Your task to perform on an android device: turn off smart reply in the gmail app Image 0: 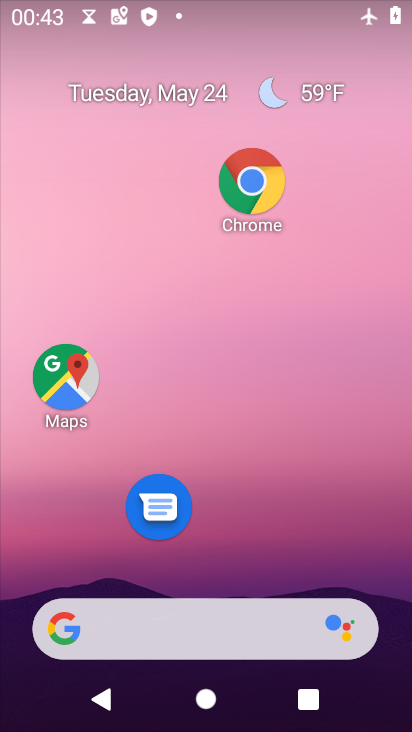
Step 0: drag from (267, 551) to (253, 289)
Your task to perform on an android device: turn off smart reply in the gmail app Image 1: 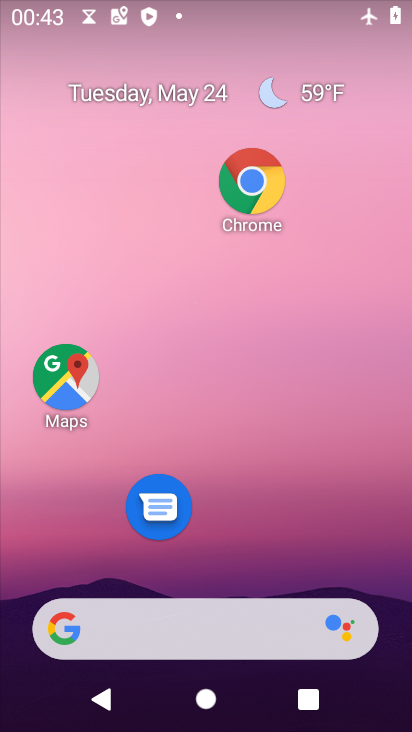
Step 1: drag from (242, 617) to (274, 301)
Your task to perform on an android device: turn off smart reply in the gmail app Image 2: 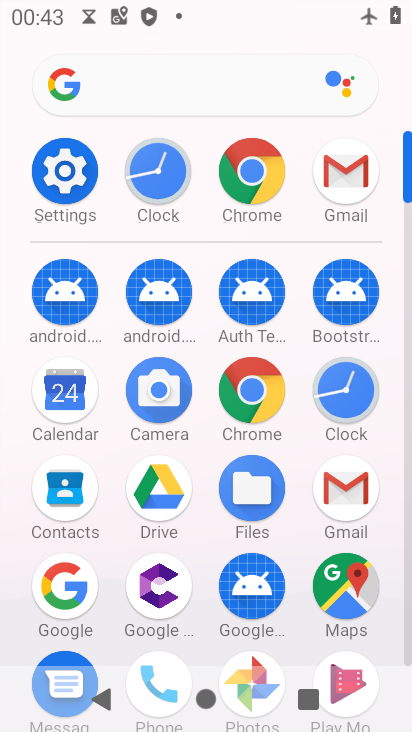
Step 2: click (343, 155)
Your task to perform on an android device: turn off smart reply in the gmail app Image 3: 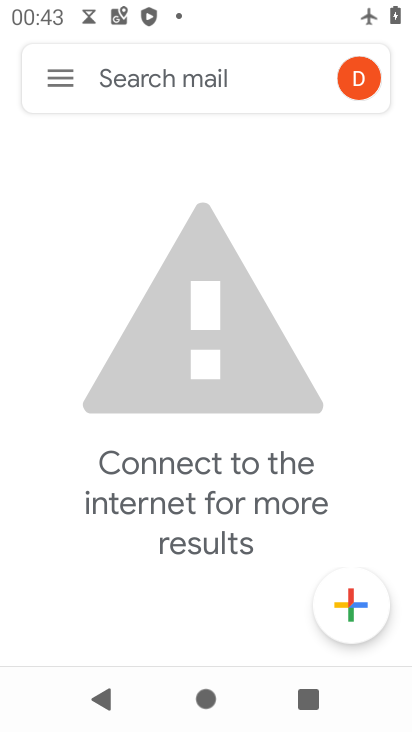
Step 3: click (64, 76)
Your task to perform on an android device: turn off smart reply in the gmail app Image 4: 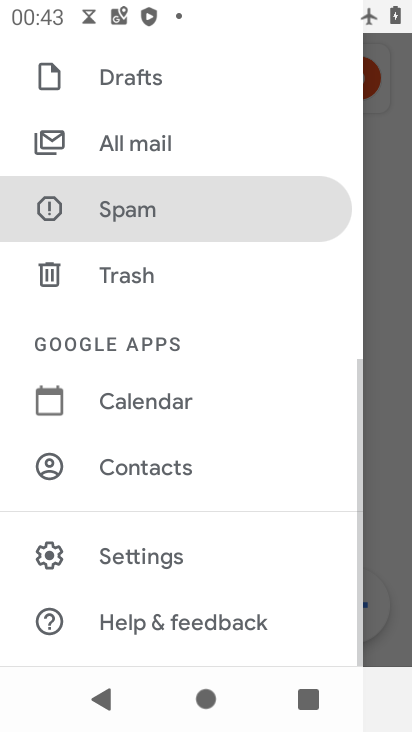
Step 4: click (163, 563)
Your task to perform on an android device: turn off smart reply in the gmail app Image 5: 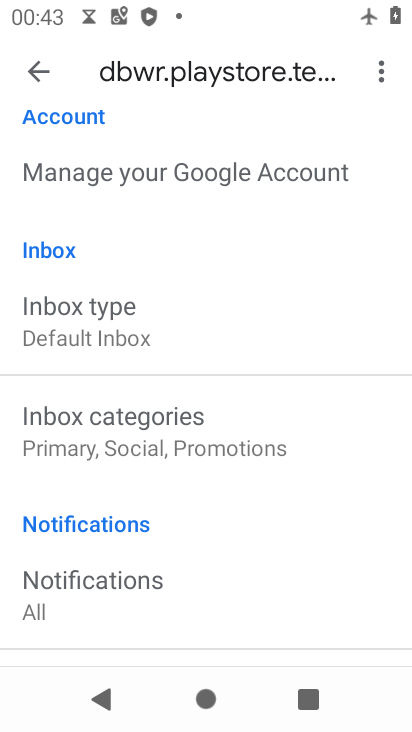
Step 5: task complete